Your task to perform on an android device: open wifi settings Image 0: 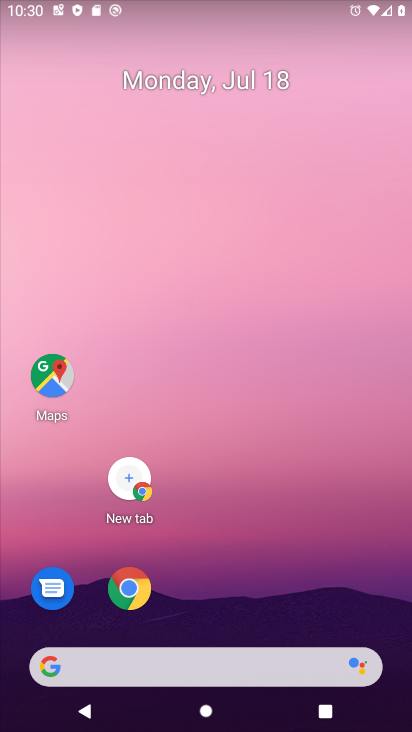
Step 0: drag from (213, 9) to (225, 462)
Your task to perform on an android device: open wifi settings Image 1: 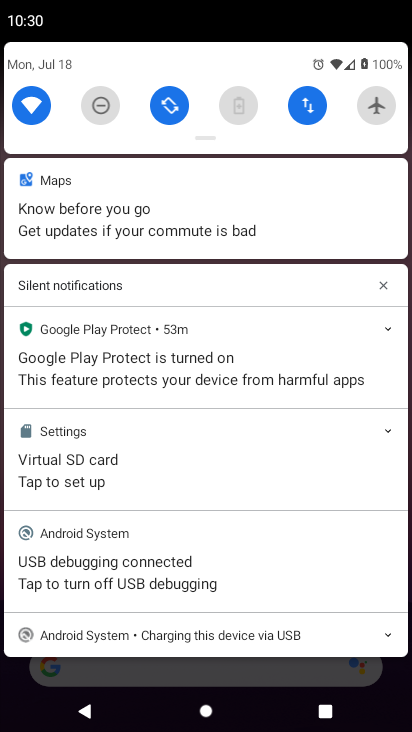
Step 1: click (37, 115)
Your task to perform on an android device: open wifi settings Image 2: 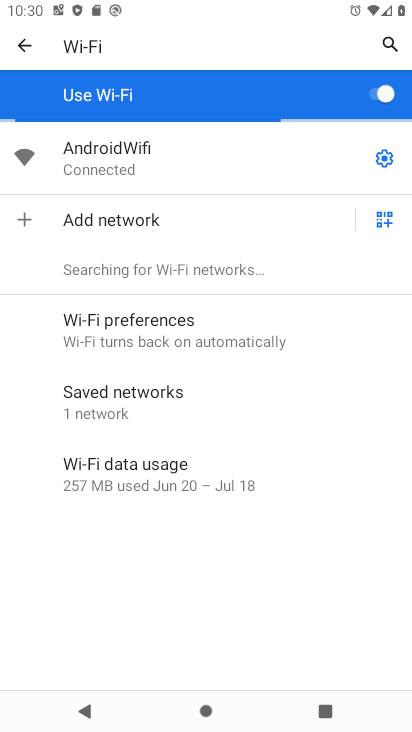
Step 2: task complete